Your task to perform on an android device: Check the news Image 0: 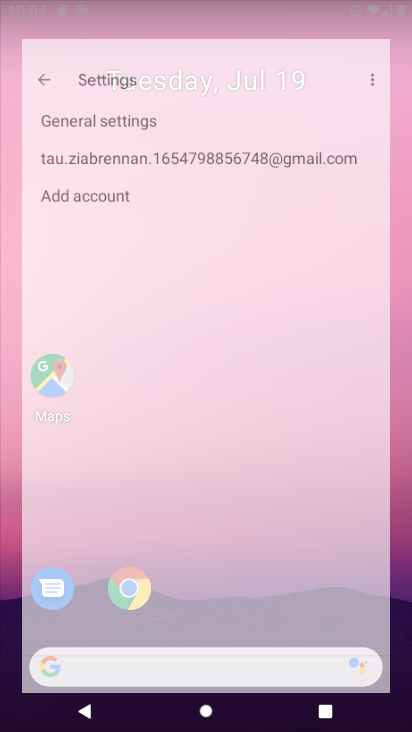
Step 0: drag from (267, 664) to (235, 119)
Your task to perform on an android device: Check the news Image 1: 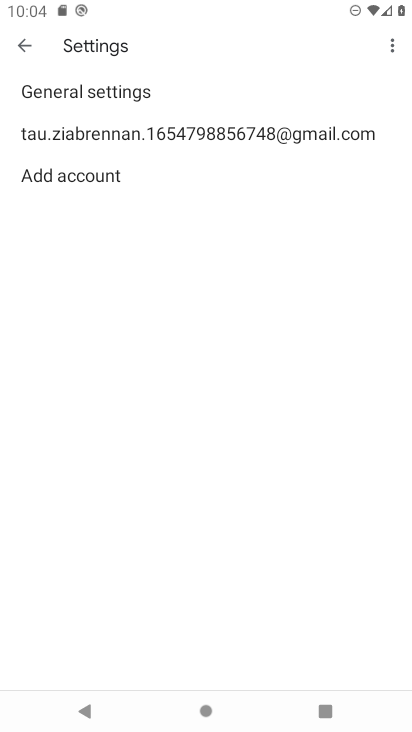
Step 1: click (24, 45)
Your task to perform on an android device: Check the news Image 2: 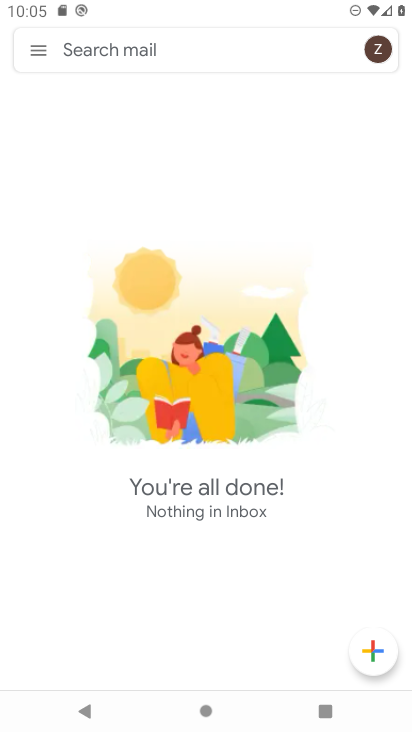
Step 2: press back button
Your task to perform on an android device: Check the news Image 3: 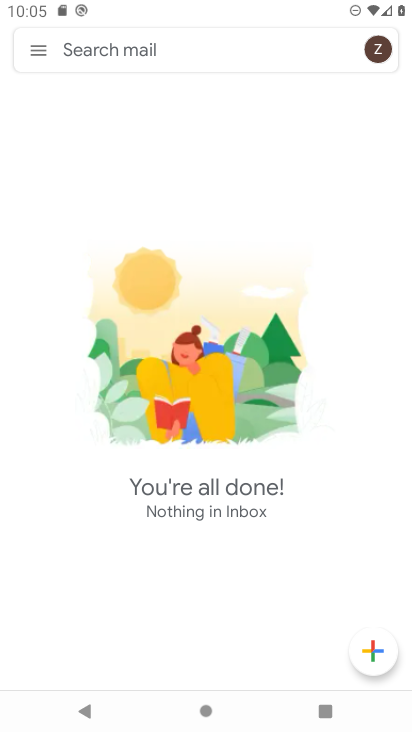
Step 3: press back button
Your task to perform on an android device: Check the news Image 4: 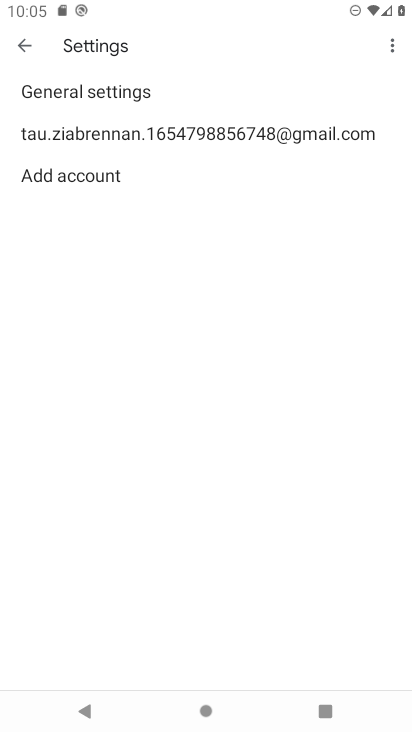
Step 4: click (24, 48)
Your task to perform on an android device: Check the news Image 5: 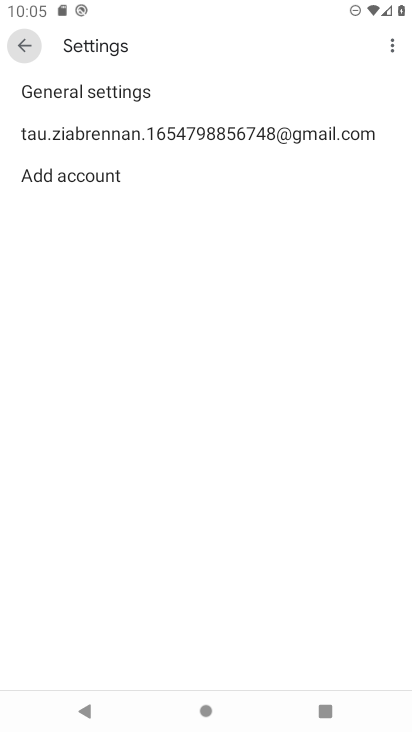
Step 5: click (24, 48)
Your task to perform on an android device: Check the news Image 6: 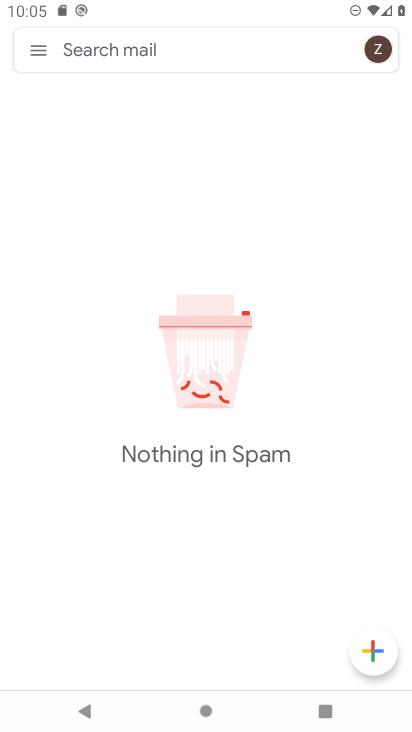
Step 6: press home button
Your task to perform on an android device: Check the news Image 7: 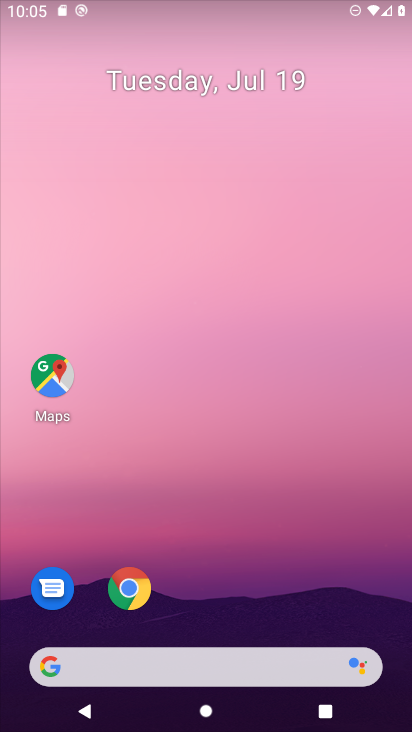
Step 7: drag from (228, 602) to (178, 96)
Your task to perform on an android device: Check the news Image 8: 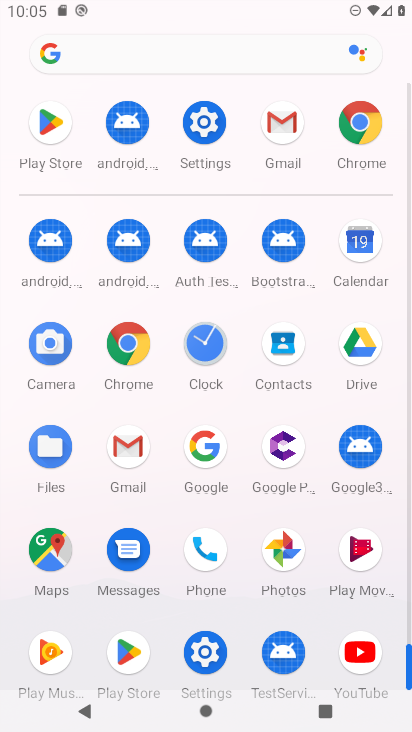
Step 8: click (367, 126)
Your task to perform on an android device: Check the news Image 9: 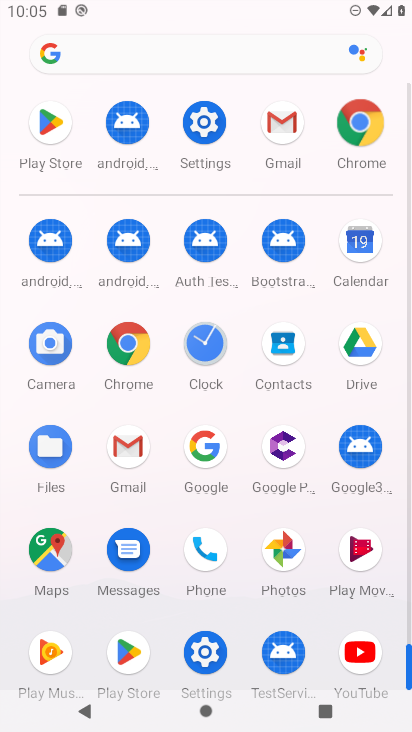
Step 9: click (365, 125)
Your task to perform on an android device: Check the news Image 10: 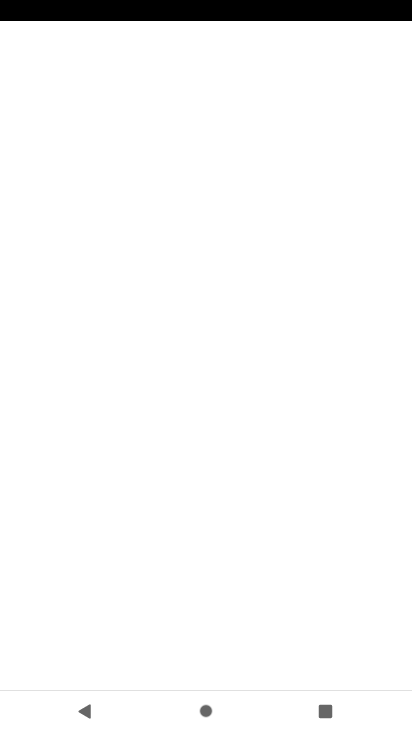
Step 10: click (360, 125)
Your task to perform on an android device: Check the news Image 11: 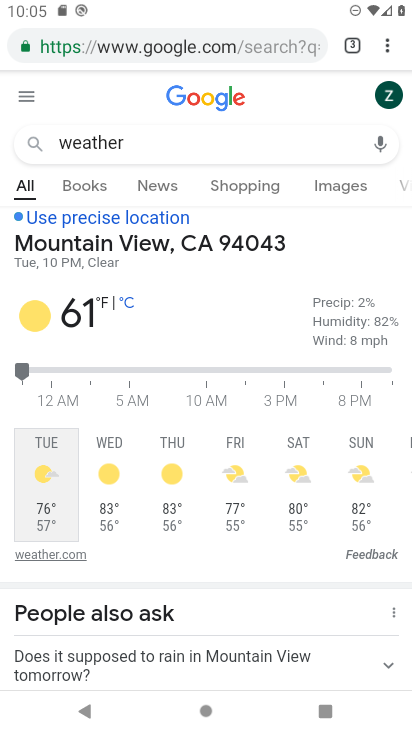
Step 11: task complete